Your task to perform on an android device: turn off improve location accuracy Image 0: 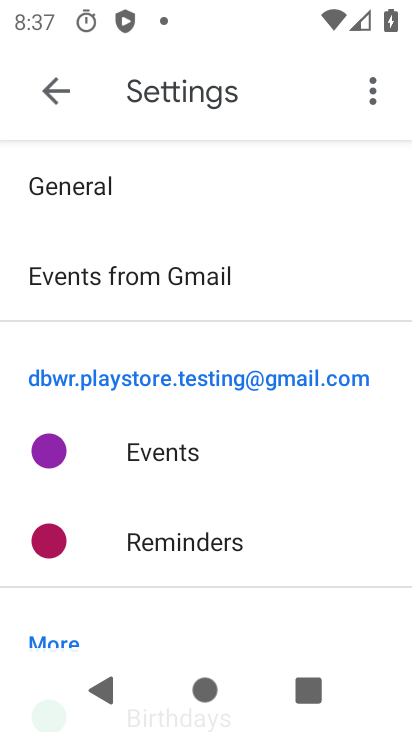
Step 0: press home button
Your task to perform on an android device: turn off improve location accuracy Image 1: 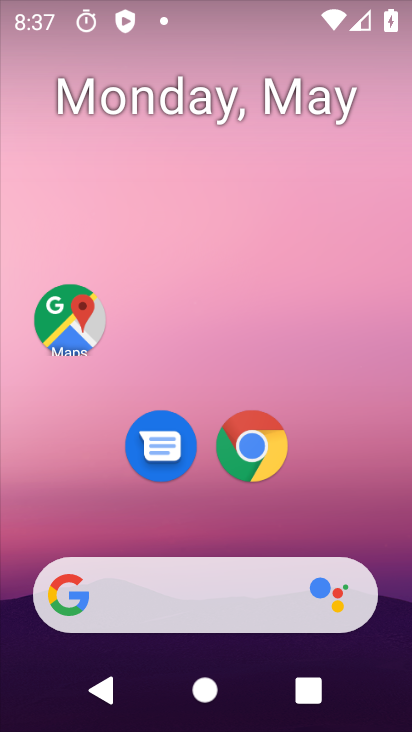
Step 1: drag from (355, 530) to (302, 25)
Your task to perform on an android device: turn off improve location accuracy Image 2: 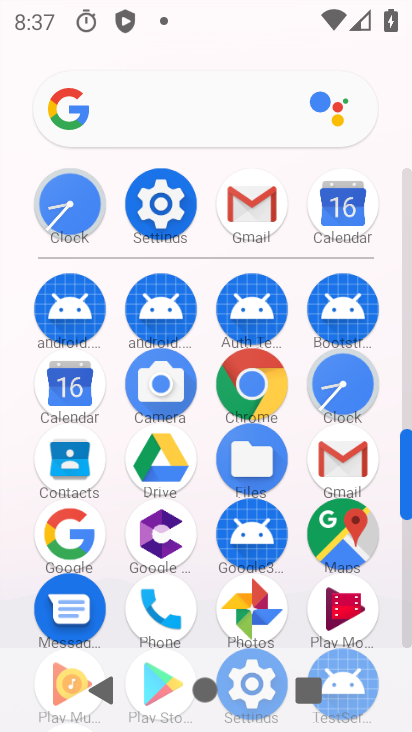
Step 2: click (156, 207)
Your task to perform on an android device: turn off improve location accuracy Image 3: 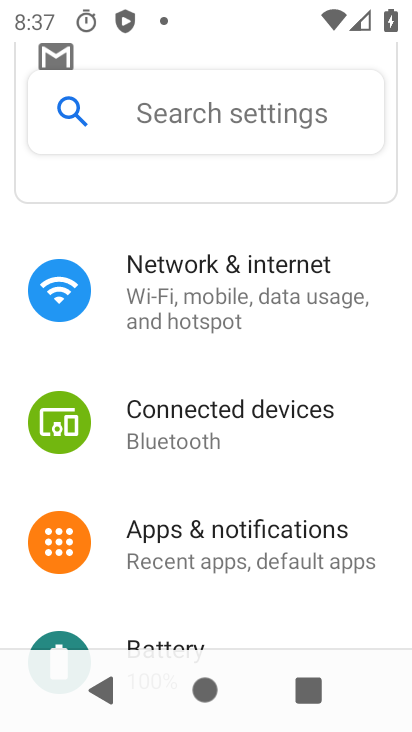
Step 3: drag from (314, 547) to (285, 129)
Your task to perform on an android device: turn off improve location accuracy Image 4: 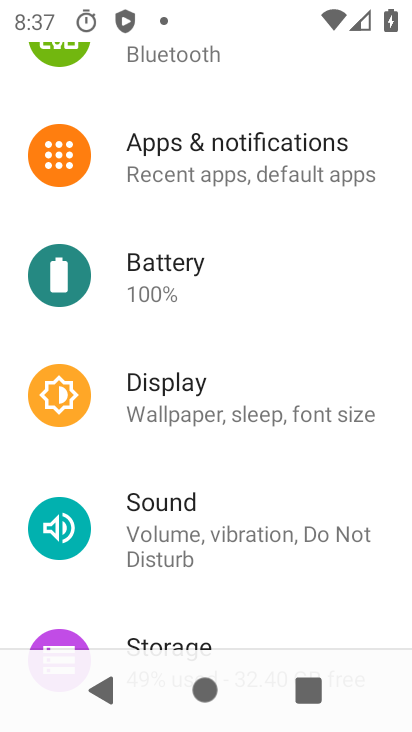
Step 4: drag from (256, 542) to (239, 120)
Your task to perform on an android device: turn off improve location accuracy Image 5: 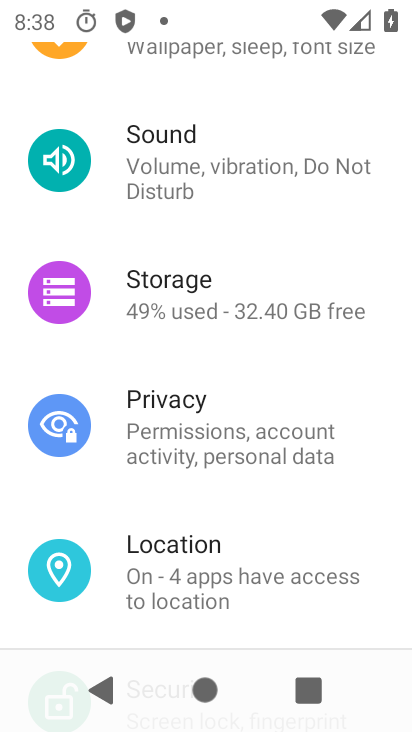
Step 5: click (218, 555)
Your task to perform on an android device: turn off improve location accuracy Image 6: 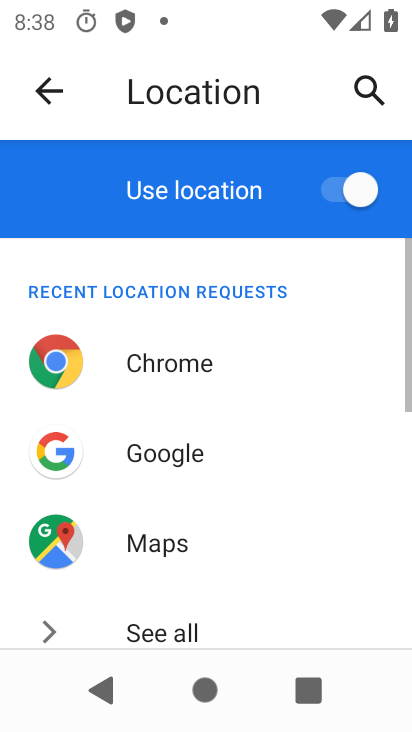
Step 6: drag from (283, 550) to (237, 113)
Your task to perform on an android device: turn off improve location accuracy Image 7: 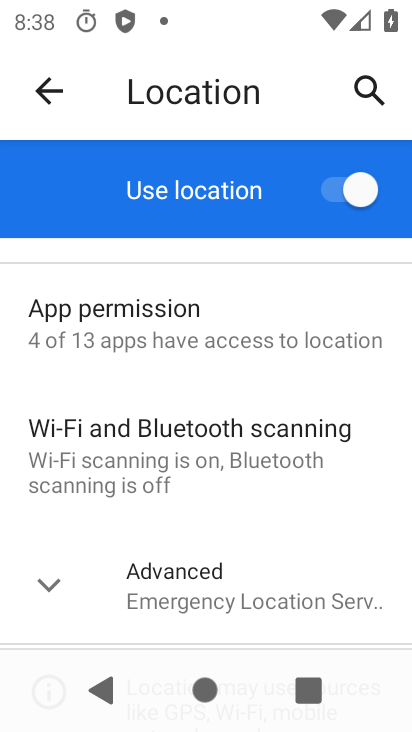
Step 7: click (46, 593)
Your task to perform on an android device: turn off improve location accuracy Image 8: 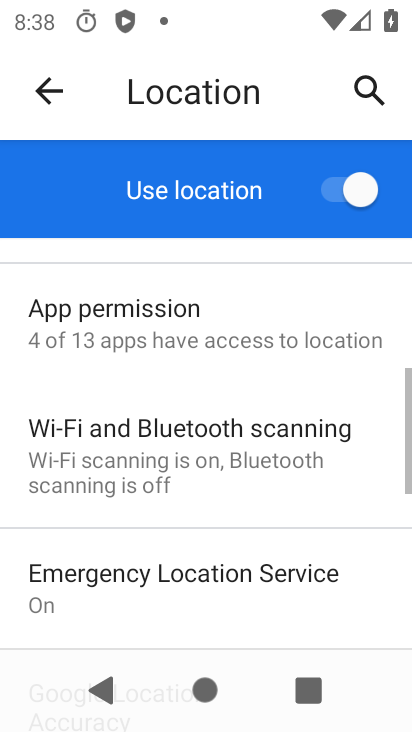
Step 8: drag from (183, 594) to (157, 239)
Your task to perform on an android device: turn off improve location accuracy Image 9: 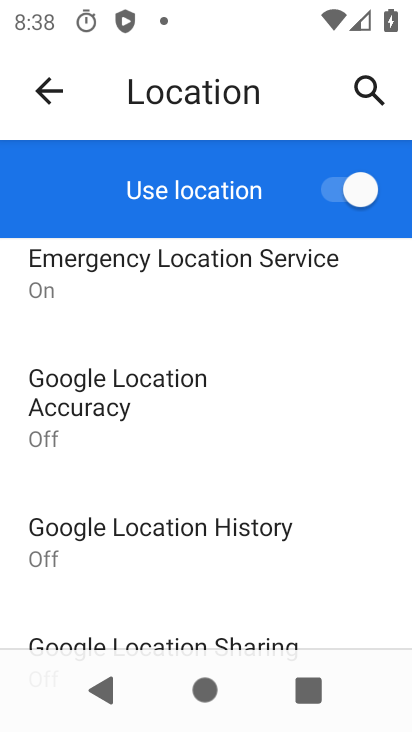
Step 9: click (89, 407)
Your task to perform on an android device: turn off improve location accuracy Image 10: 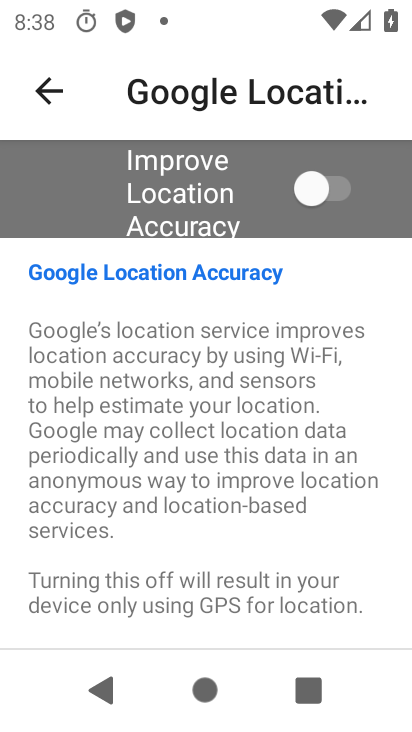
Step 10: task complete